Your task to perform on an android device: Show me the alarms in the clock app Image 0: 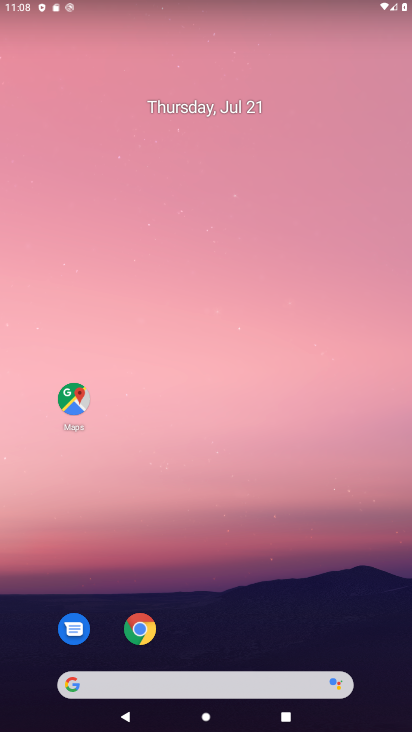
Step 0: drag from (254, 637) to (237, 87)
Your task to perform on an android device: Show me the alarms in the clock app Image 1: 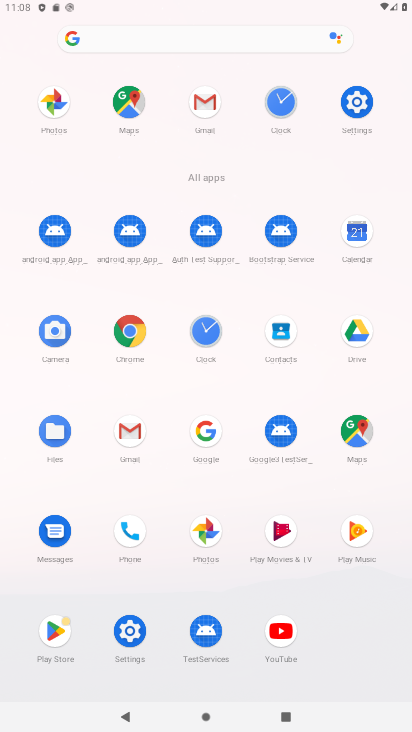
Step 1: click (283, 101)
Your task to perform on an android device: Show me the alarms in the clock app Image 2: 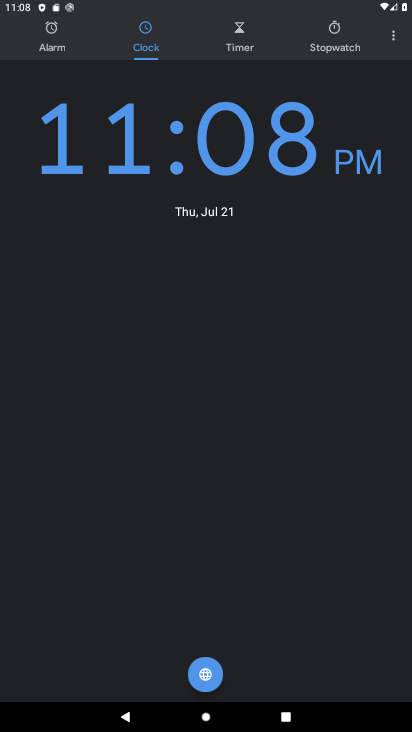
Step 2: click (63, 43)
Your task to perform on an android device: Show me the alarms in the clock app Image 3: 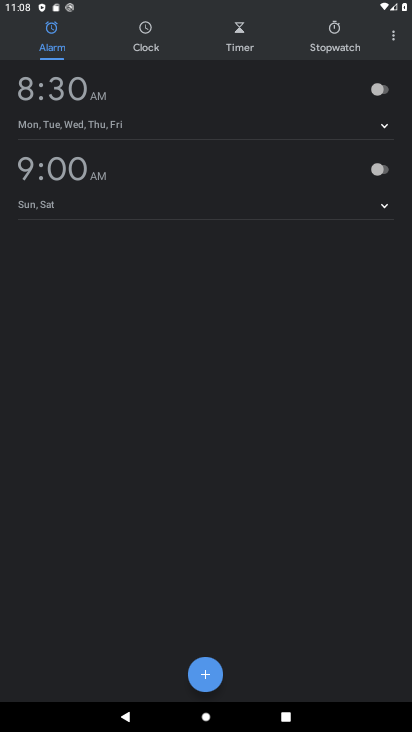
Step 3: task complete